Your task to perform on an android device: Open Maps and search for coffee Image 0: 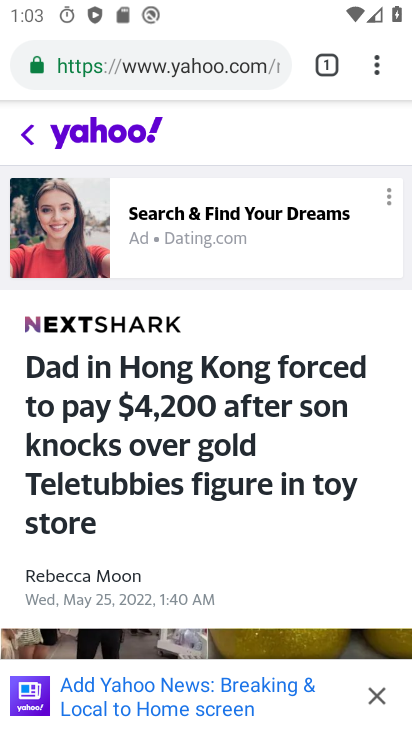
Step 0: press home button
Your task to perform on an android device: Open Maps and search for coffee Image 1: 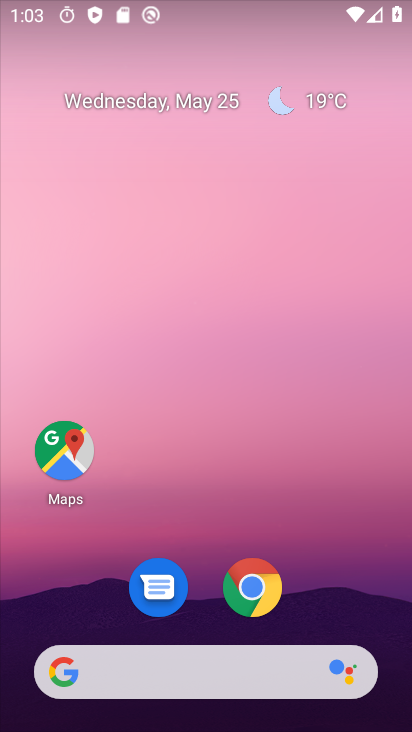
Step 1: drag from (175, 715) to (167, 74)
Your task to perform on an android device: Open Maps and search for coffee Image 2: 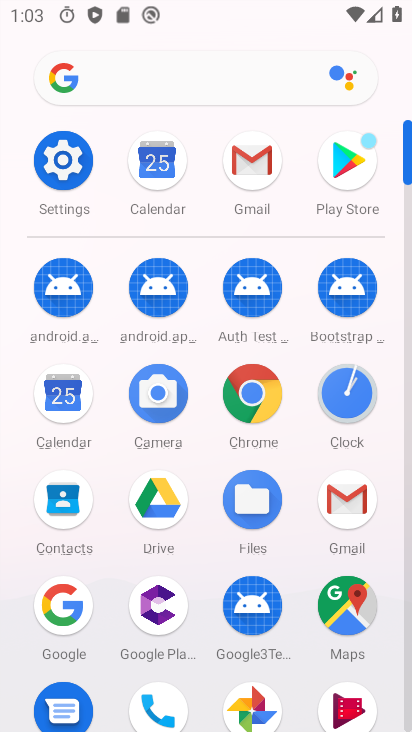
Step 2: click (345, 602)
Your task to perform on an android device: Open Maps and search for coffee Image 3: 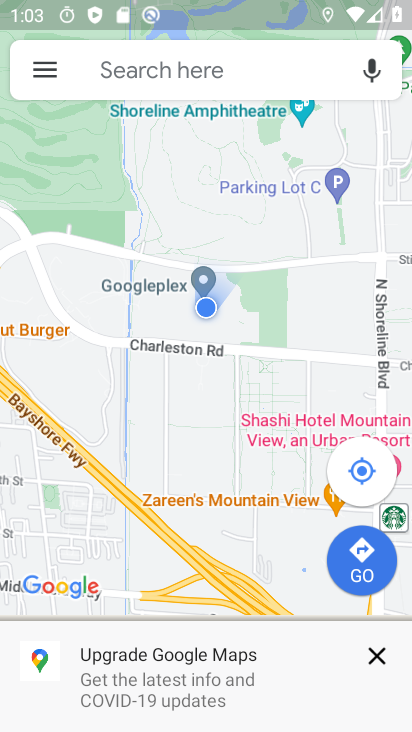
Step 3: click (163, 74)
Your task to perform on an android device: Open Maps and search for coffee Image 4: 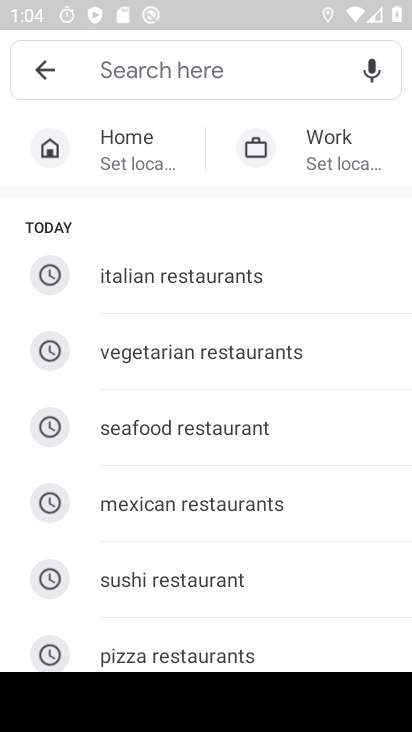
Step 4: type "Coffee"
Your task to perform on an android device: Open Maps and search for coffee Image 5: 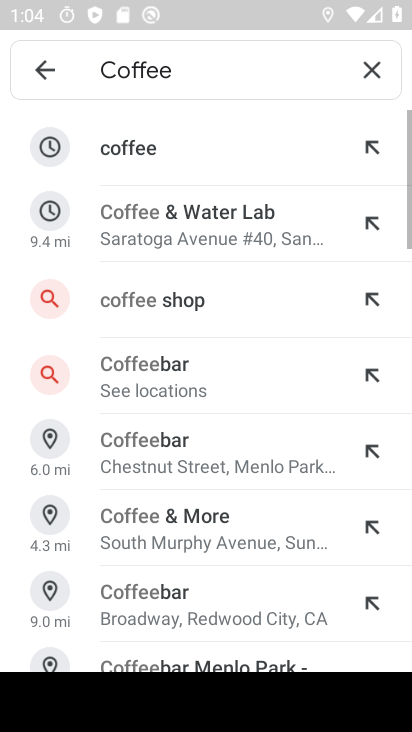
Step 5: click (142, 146)
Your task to perform on an android device: Open Maps and search for coffee Image 6: 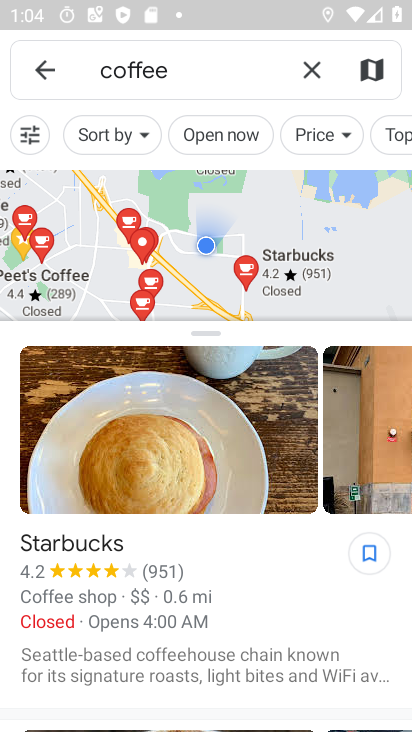
Step 6: task complete